Your task to perform on an android device: Open the Play Movies app and select the watchlist tab. Image 0: 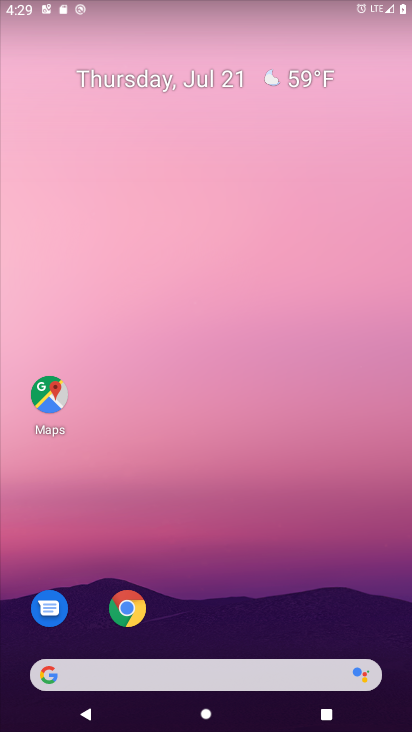
Step 0: drag from (117, 678) to (191, 132)
Your task to perform on an android device: Open the Play Movies app and select the watchlist tab. Image 1: 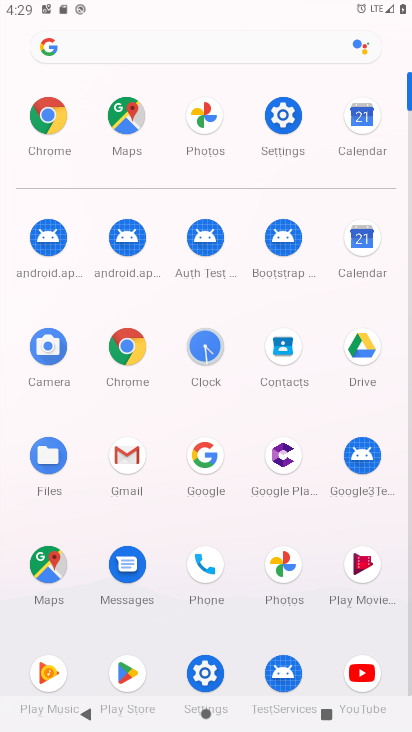
Step 1: click (370, 560)
Your task to perform on an android device: Open the Play Movies app and select the watchlist tab. Image 2: 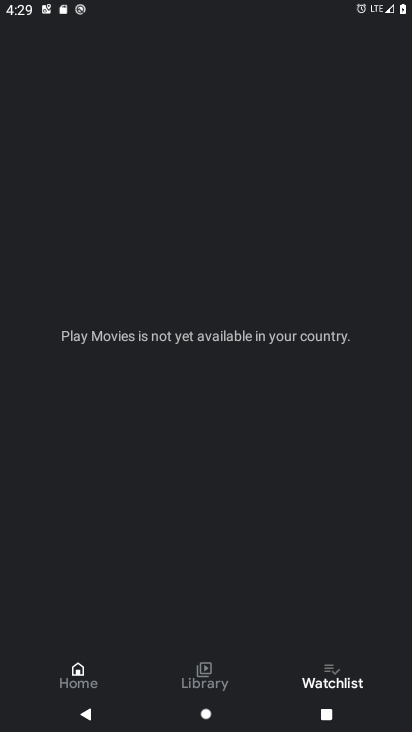
Step 2: click (340, 675)
Your task to perform on an android device: Open the Play Movies app and select the watchlist tab. Image 3: 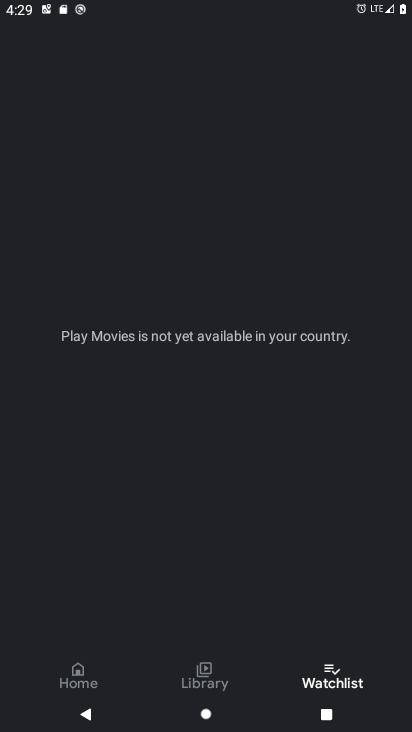
Step 3: task complete